Your task to perform on an android device: turn off notifications settings in the gmail app Image 0: 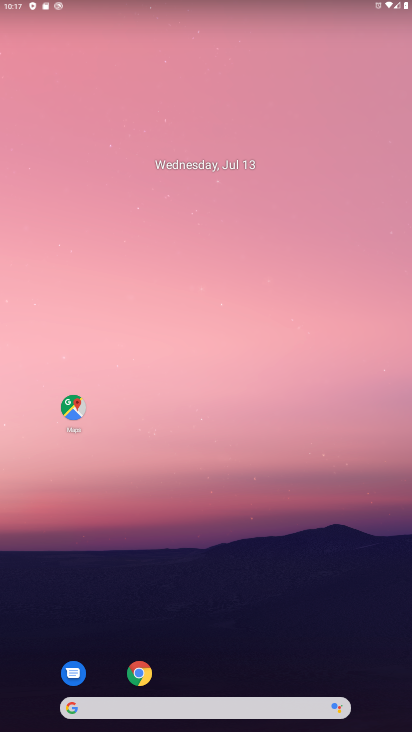
Step 0: drag from (235, 686) to (287, 226)
Your task to perform on an android device: turn off notifications settings in the gmail app Image 1: 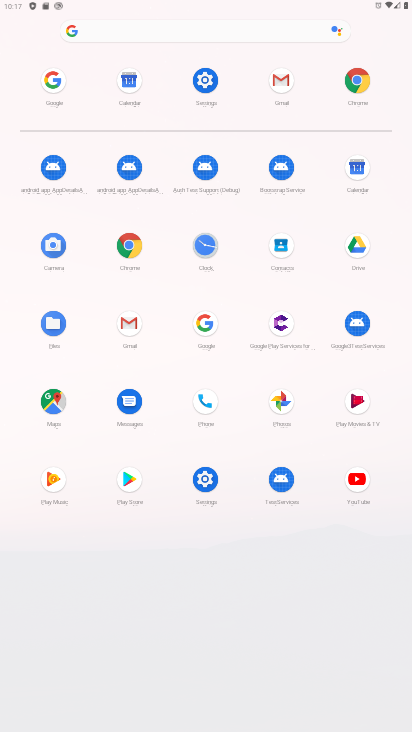
Step 1: click (117, 330)
Your task to perform on an android device: turn off notifications settings in the gmail app Image 2: 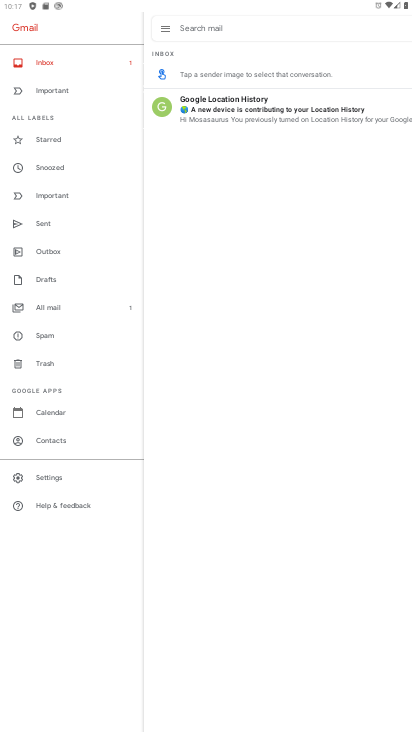
Step 2: click (53, 475)
Your task to perform on an android device: turn off notifications settings in the gmail app Image 3: 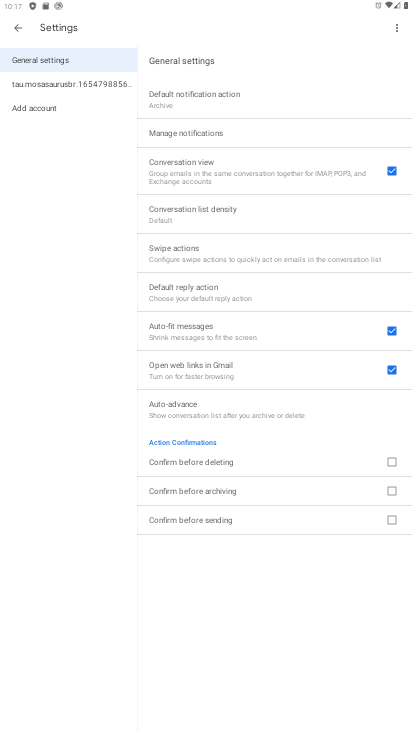
Step 3: click (182, 137)
Your task to perform on an android device: turn off notifications settings in the gmail app Image 4: 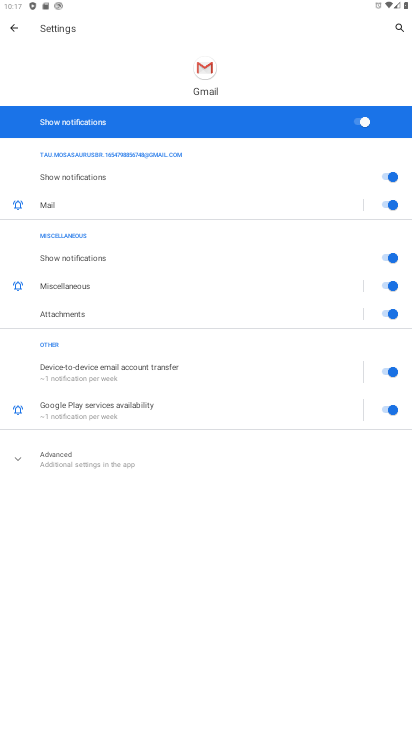
Step 4: click (365, 127)
Your task to perform on an android device: turn off notifications settings in the gmail app Image 5: 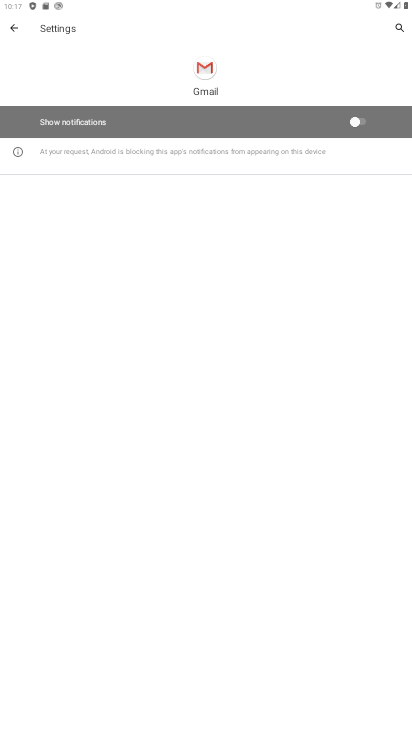
Step 5: task complete